Your task to perform on an android device: move a message to another label in the gmail app Image 0: 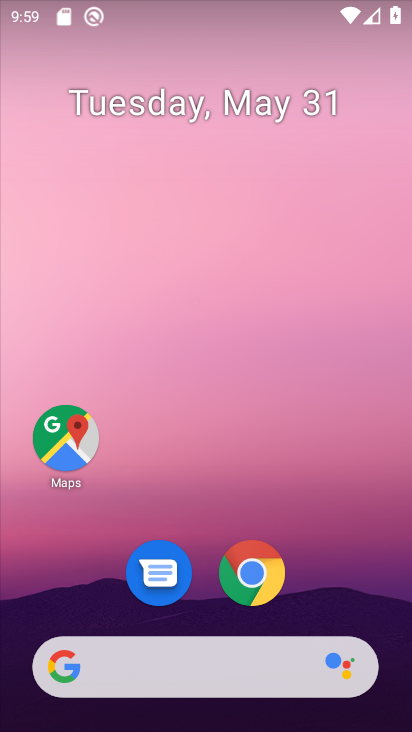
Step 0: drag from (228, 504) to (212, 10)
Your task to perform on an android device: move a message to another label in the gmail app Image 1: 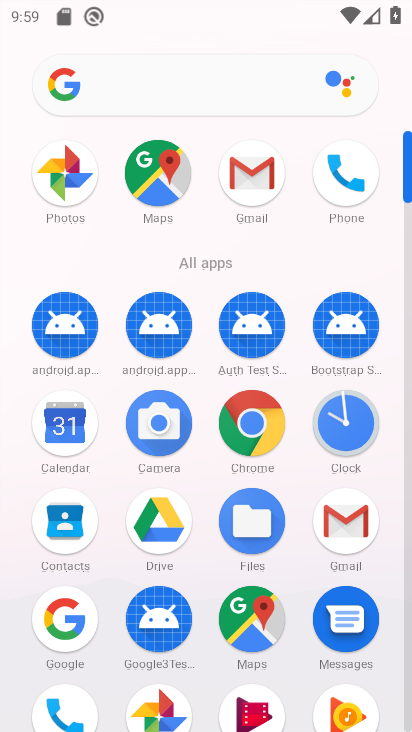
Step 1: click (264, 170)
Your task to perform on an android device: move a message to another label in the gmail app Image 2: 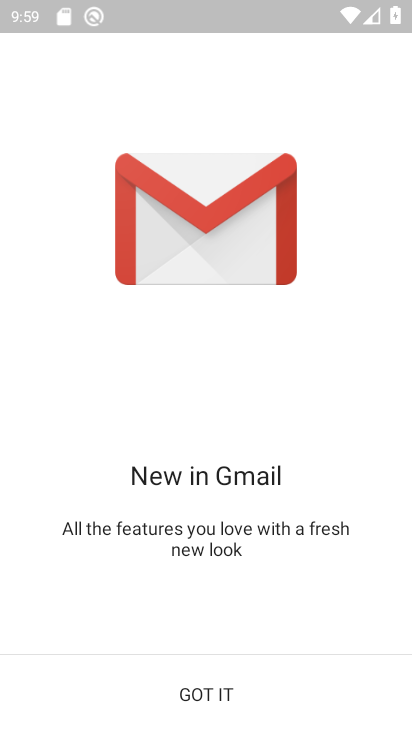
Step 2: click (209, 672)
Your task to perform on an android device: move a message to another label in the gmail app Image 3: 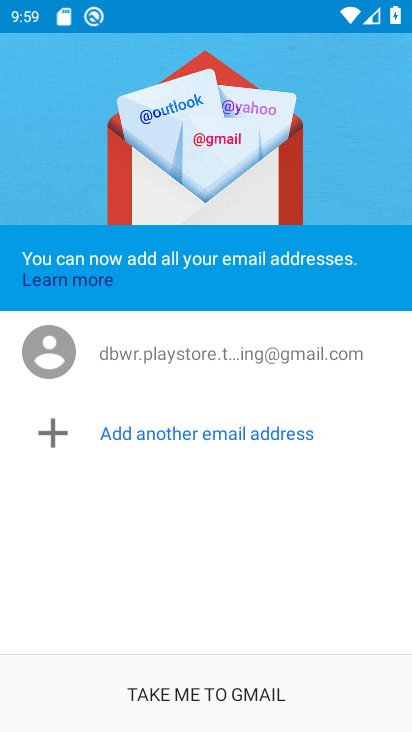
Step 3: click (209, 672)
Your task to perform on an android device: move a message to another label in the gmail app Image 4: 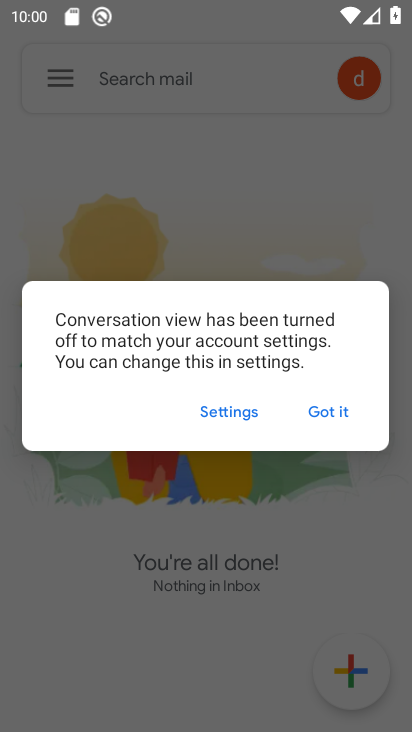
Step 4: click (314, 409)
Your task to perform on an android device: move a message to another label in the gmail app Image 5: 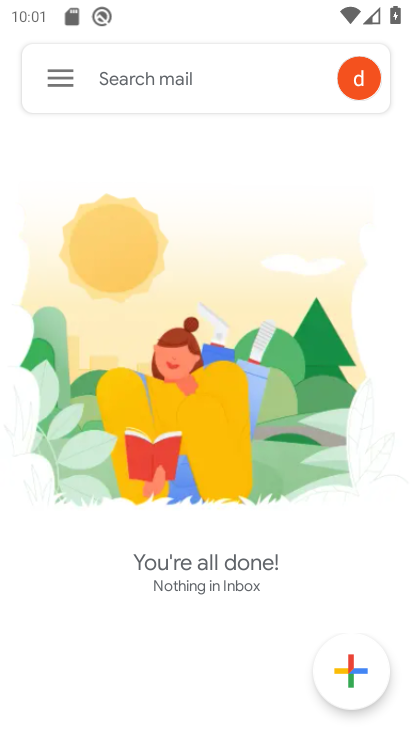
Step 5: task complete